Your task to perform on an android device: Search for 8K TVs on Best Buy. Image 0: 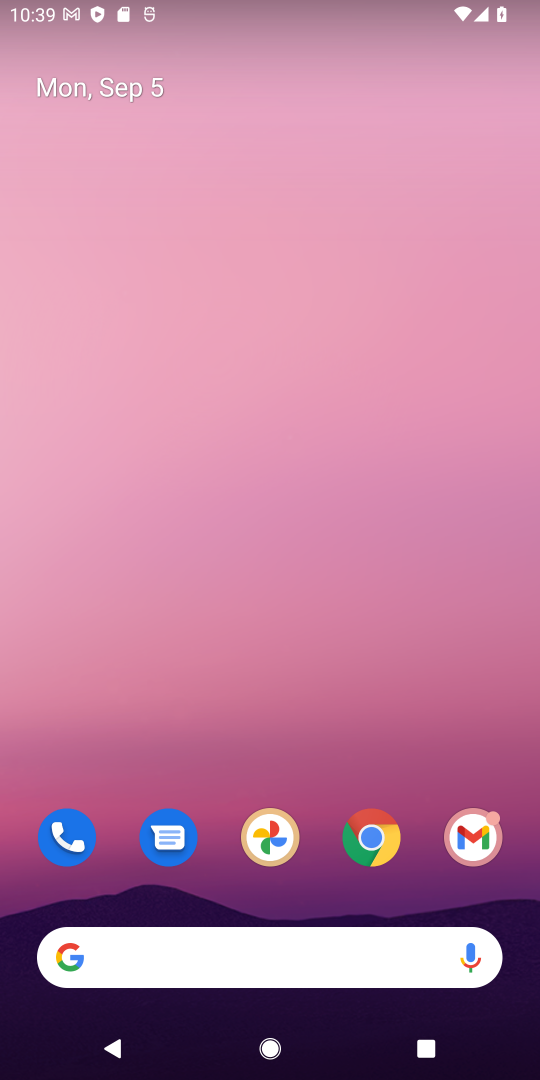
Step 0: press home button
Your task to perform on an android device: Search for 8K TVs on Best Buy. Image 1: 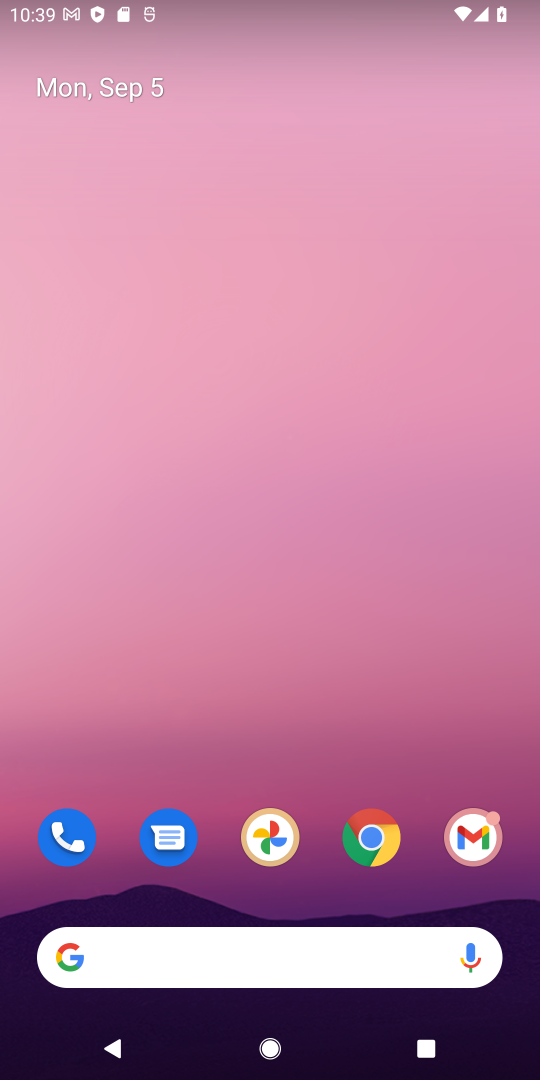
Step 1: drag from (315, 801) to (353, 59)
Your task to perform on an android device: Search for 8K TVs on Best Buy. Image 2: 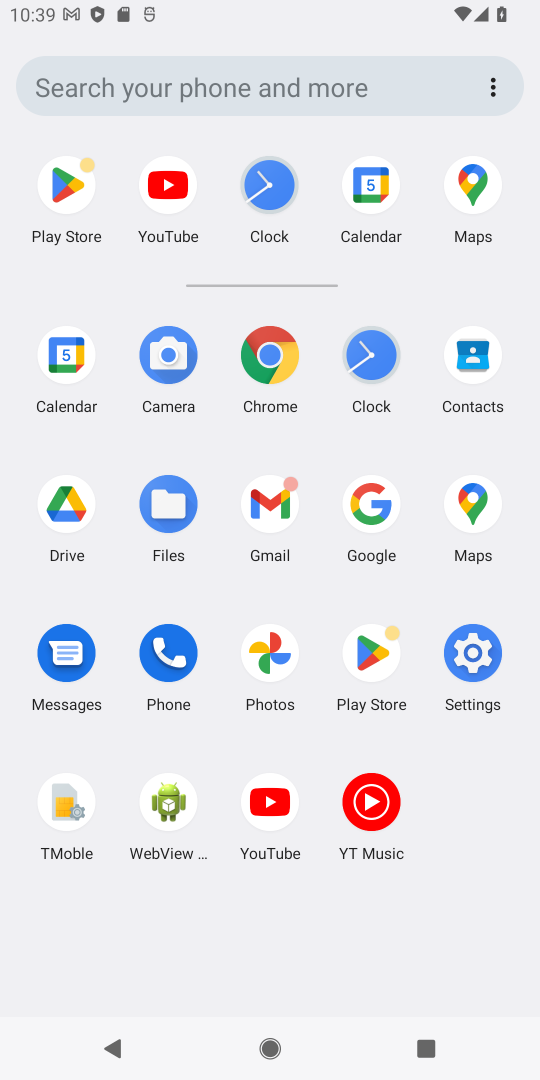
Step 2: click (267, 344)
Your task to perform on an android device: Search for 8K TVs on Best Buy. Image 3: 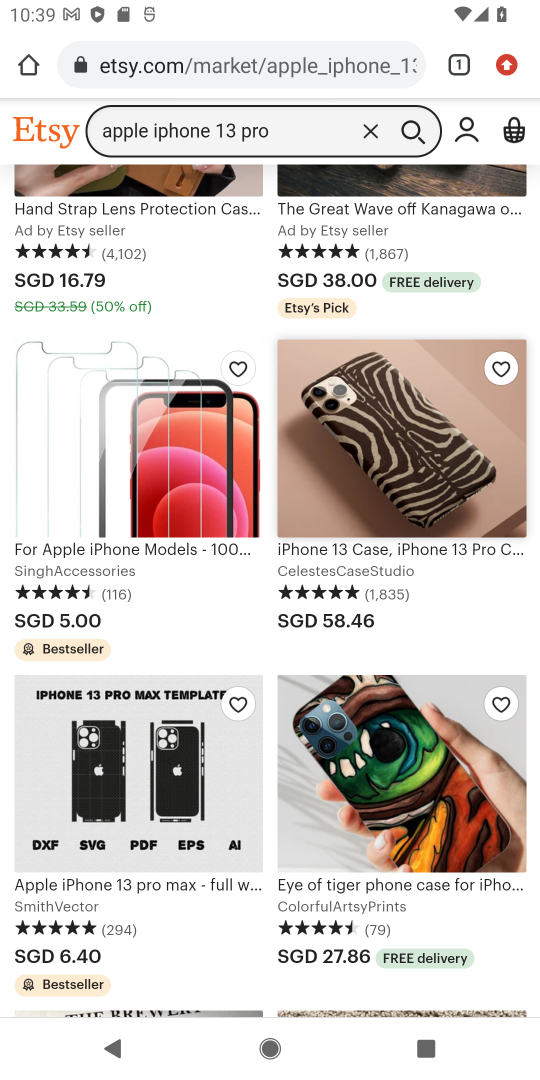
Step 3: click (271, 68)
Your task to perform on an android device: Search for 8K TVs on Best Buy. Image 4: 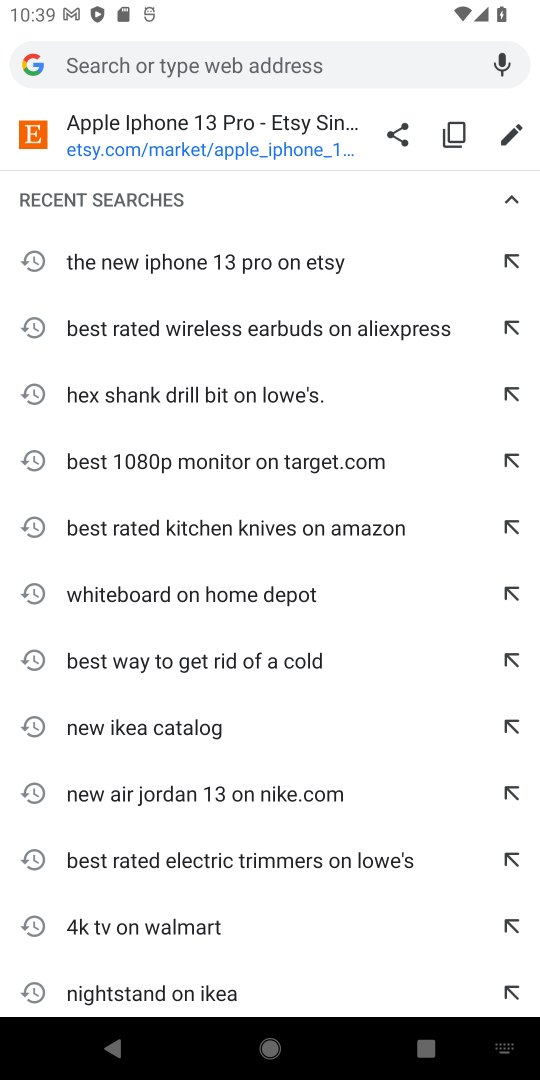
Step 4: type "8K TVs on Best Buy"
Your task to perform on an android device: Search for 8K TVs on Best Buy. Image 5: 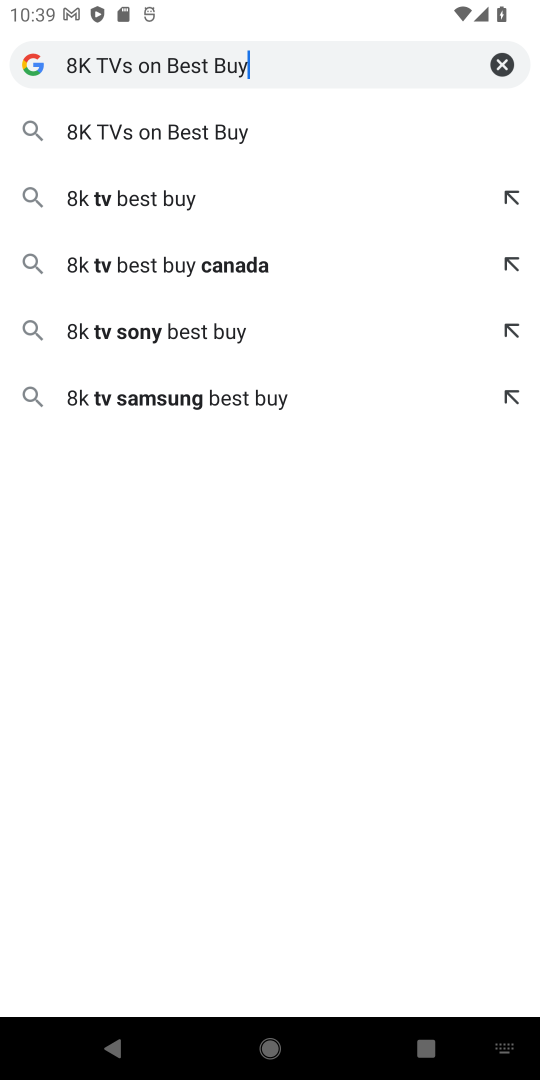
Step 5: click (197, 139)
Your task to perform on an android device: Search for 8K TVs on Best Buy. Image 6: 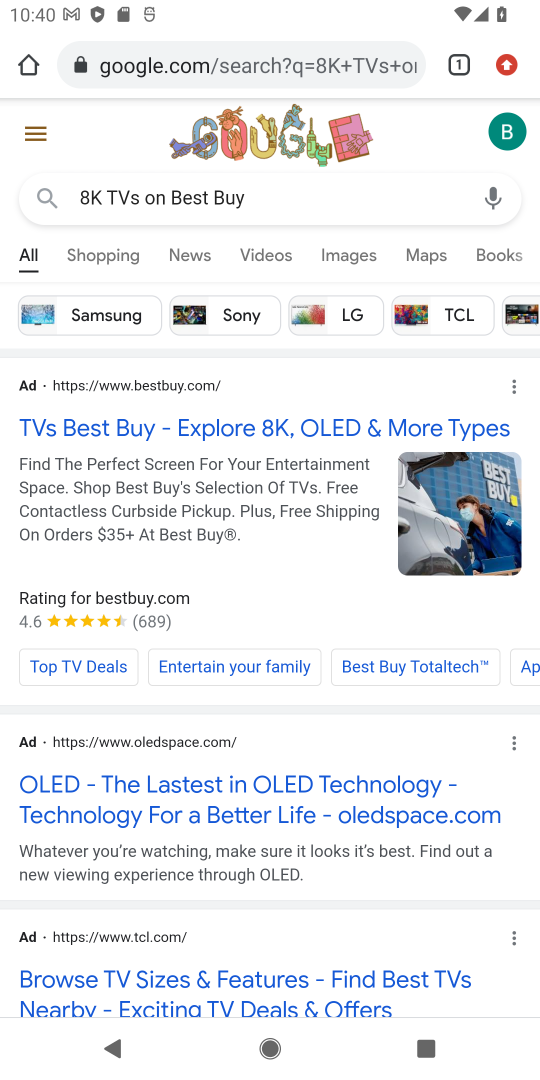
Step 6: drag from (232, 434) to (219, 354)
Your task to perform on an android device: Search for 8K TVs on Best Buy. Image 7: 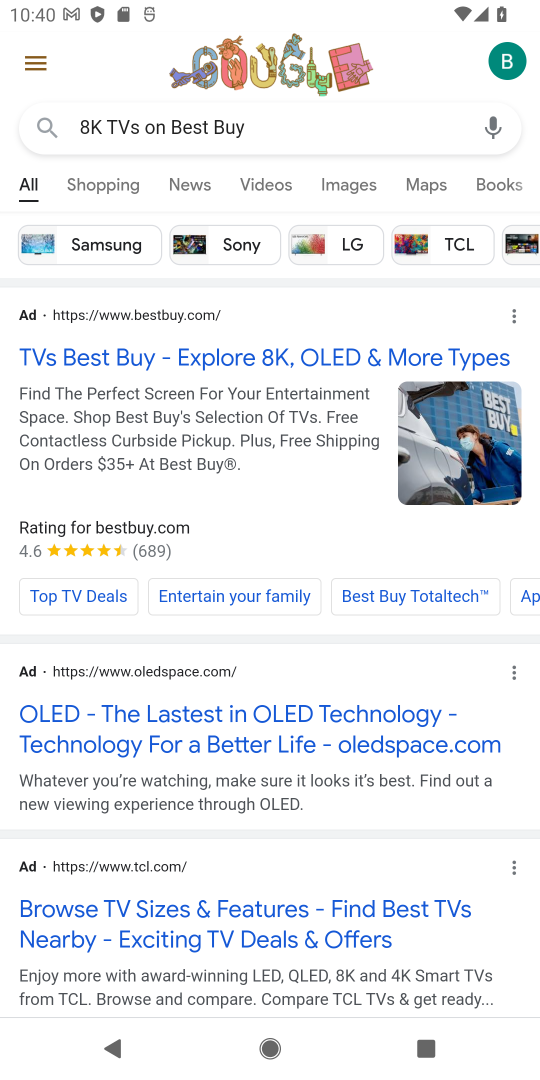
Step 7: drag from (288, 984) to (221, 349)
Your task to perform on an android device: Search for 8K TVs on Best Buy. Image 8: 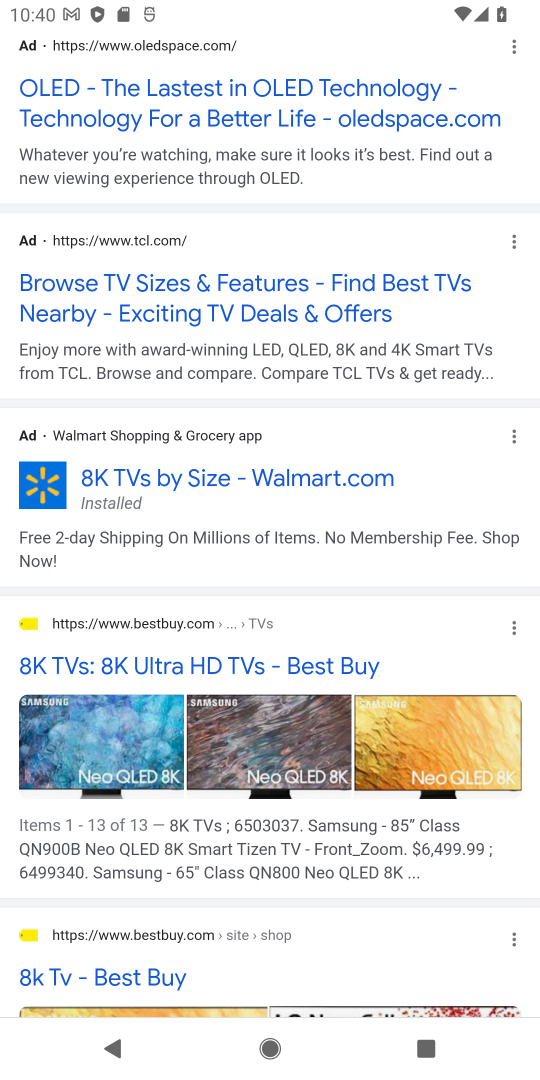
Step 8: drag from (252, 903) to (261, 1074)
Your task to perform on an android device: Search for 8K TVs on Best Buy. Image 9: 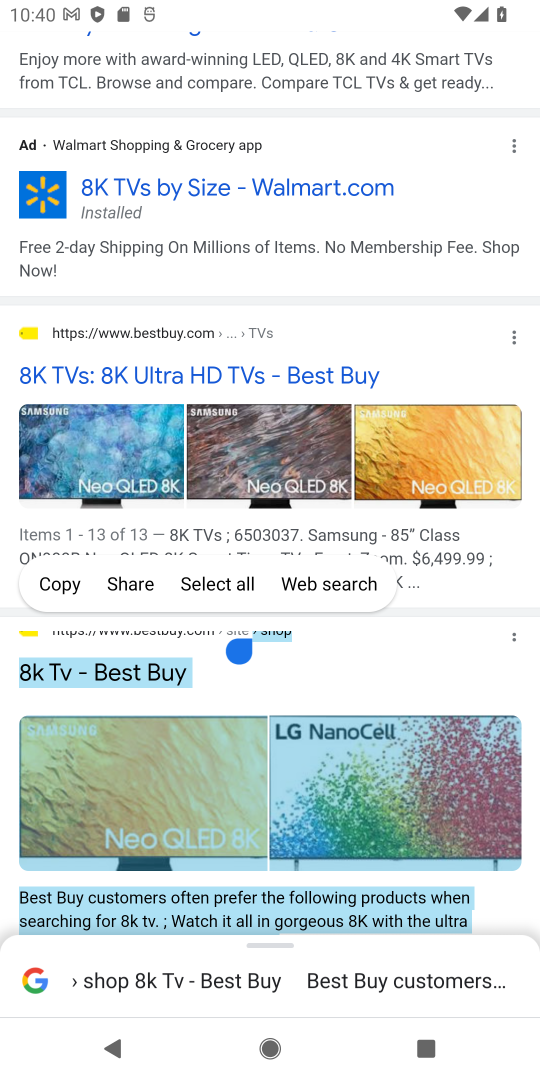
Step 9: click (213, 377)
Your task to perform on an android device: Search for 8K TVs on Best Buy. Image 10: 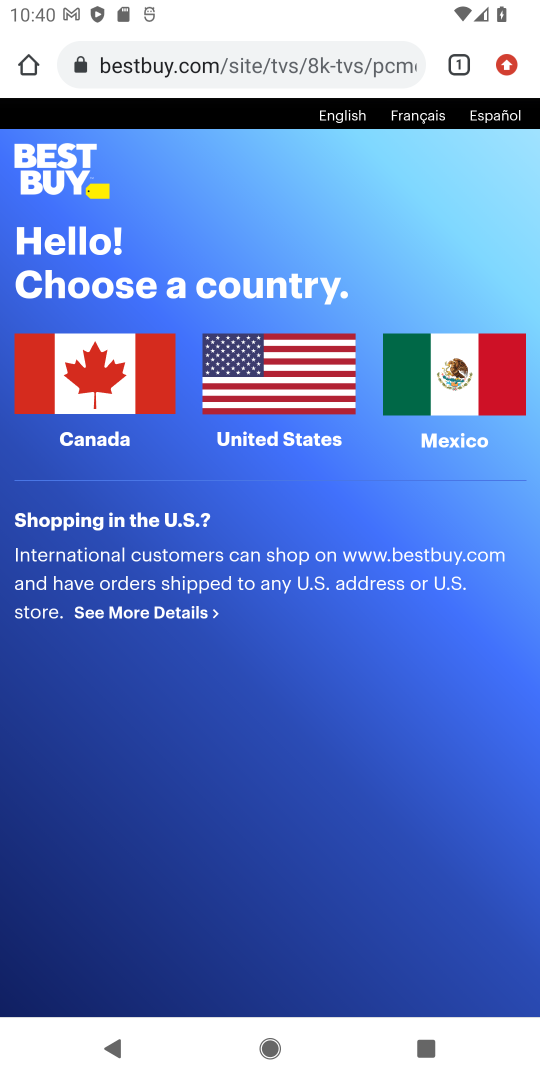
Step 10: click (252, 400)
Your task to perform on an android device: Search for 8K TVs on Best Buy. Image 11: 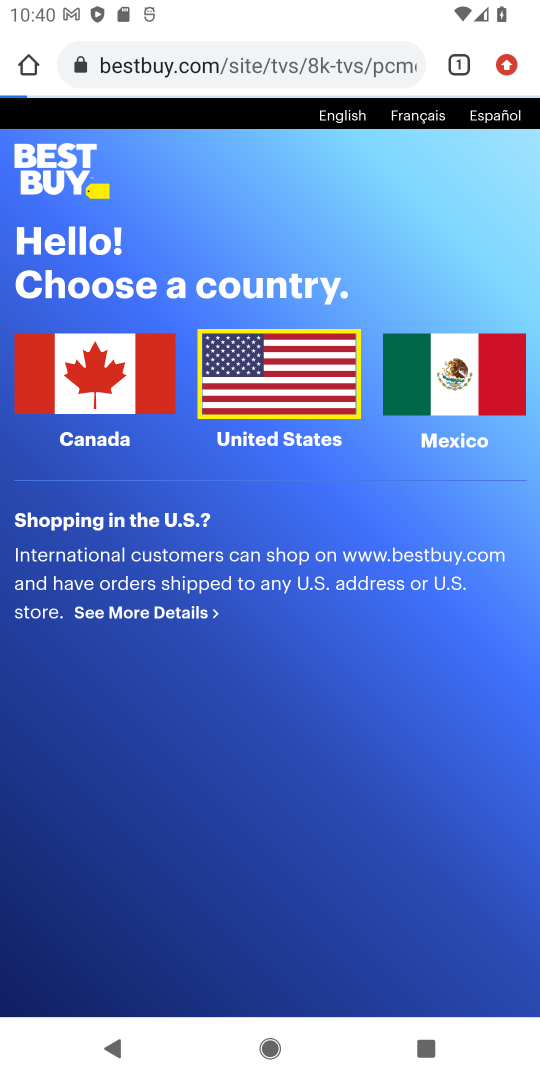
Step 11: click (253, 404)
Your task to perform on an android device: Search for 8K TVs on Best Buy. Image 12: 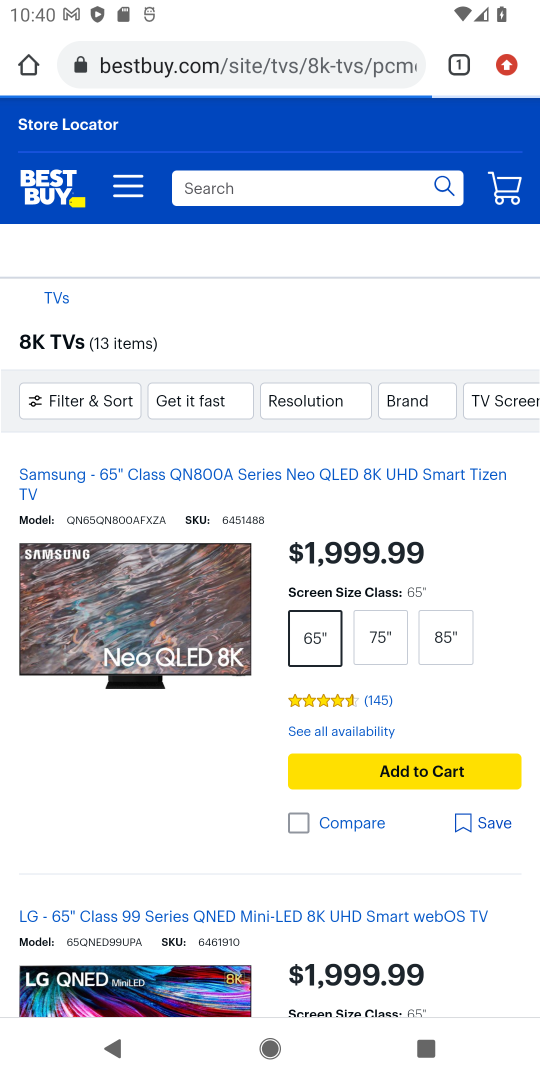
Step 12: drag from (243, 818) to (232, 305)
Your task to perform on an android device: Search for 8K TVs on Best Buy. Image 13: 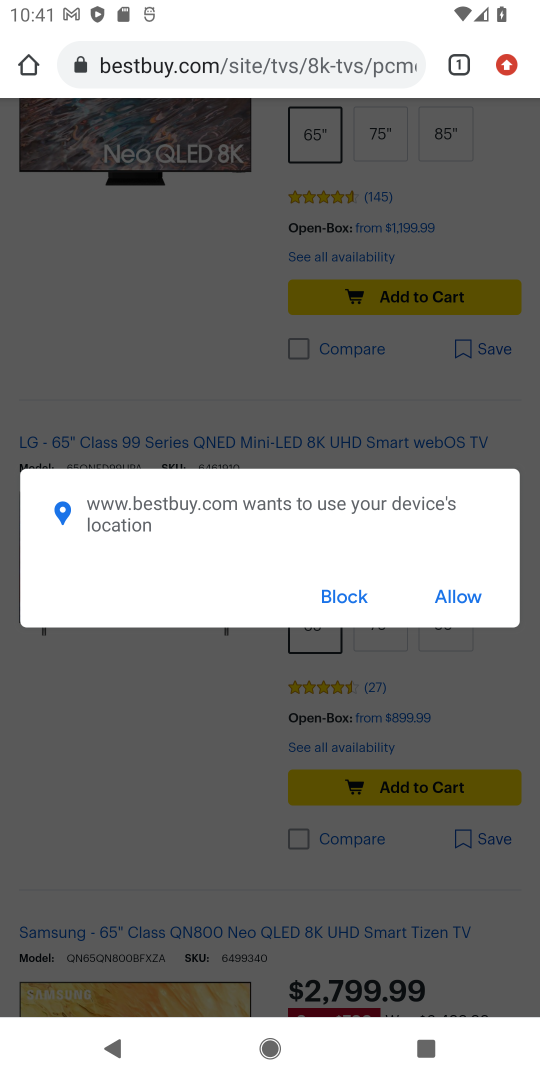
Step 13: drag from (254, 701) to (242, 321)
Your task to perform on an android device: Search for 8K TVs on Best Buy. Image 14: 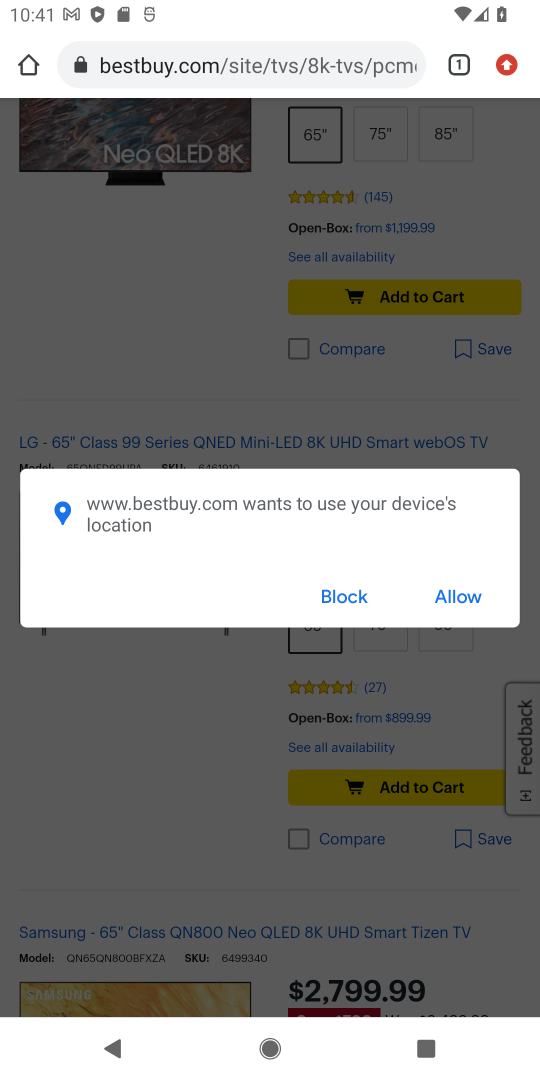
Step 14: click (463, 587)
Your task to perform on an android device: Search for 8K TVs on Best Buy. Image 15: 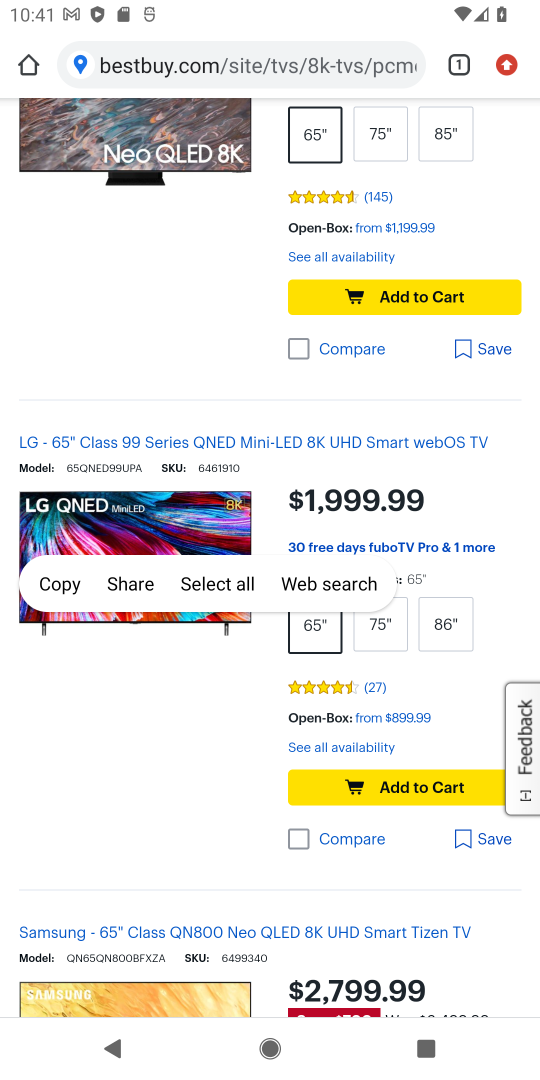
Step 15: task complete